Your task to perform on an android device: Go to sound settings Image 0: 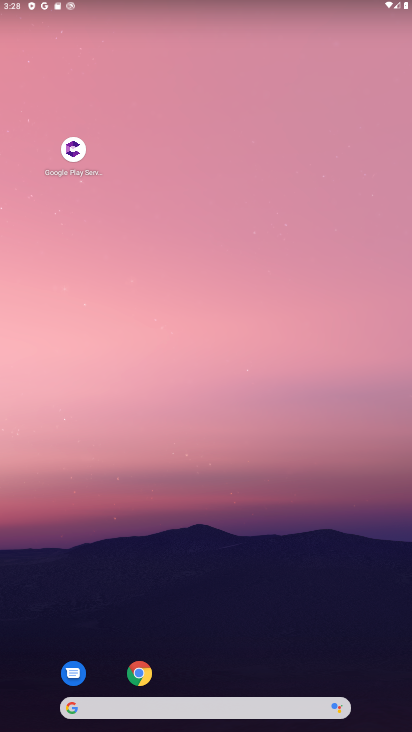
Step 0: drag from (199, 696) to (249, 319)
Your task to perform on an android device: Go to sound settings Image 1: 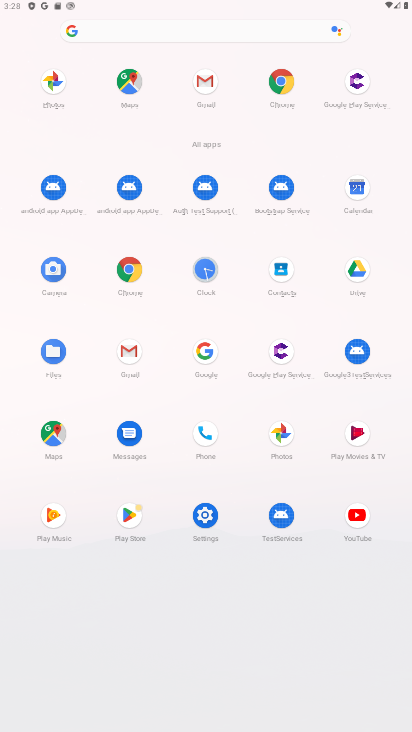
Step 1: click (207, 518)
Your task to perform on an android device: Go to sound settings Image 2: 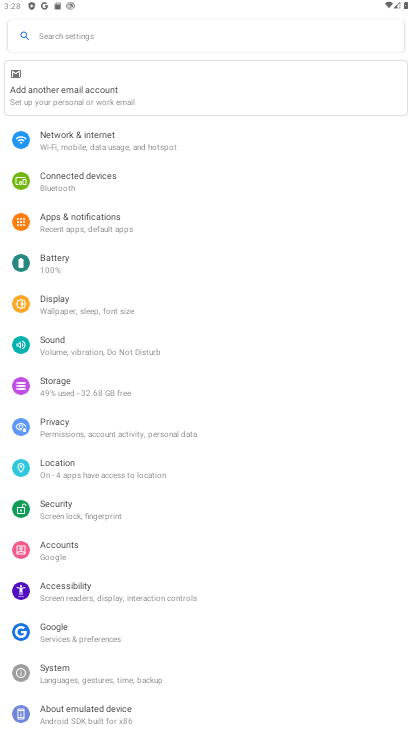
Step 2: click (83, 350)
Your task to perform on an android device: Go to sound settings Image 3: 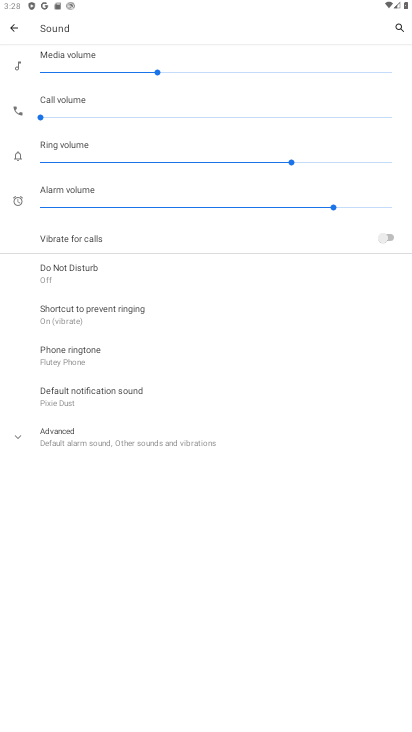
Step 3: click (53, 429)
Your task to perform on an android device: Go to sound settings Image 4: 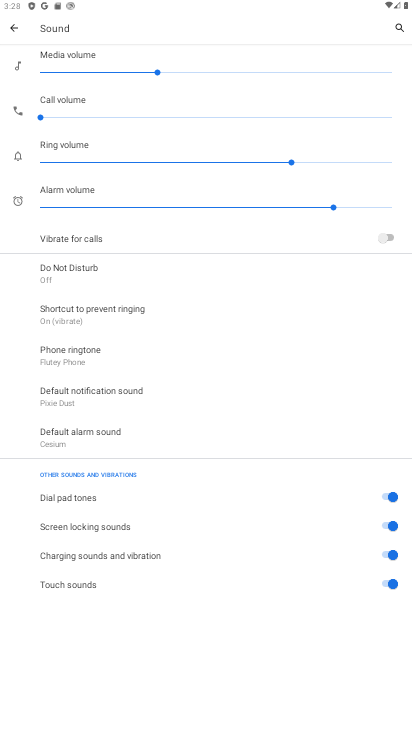
Step 4: task complete